Your task to perform on an android device: change alarm snooze length Image 0: 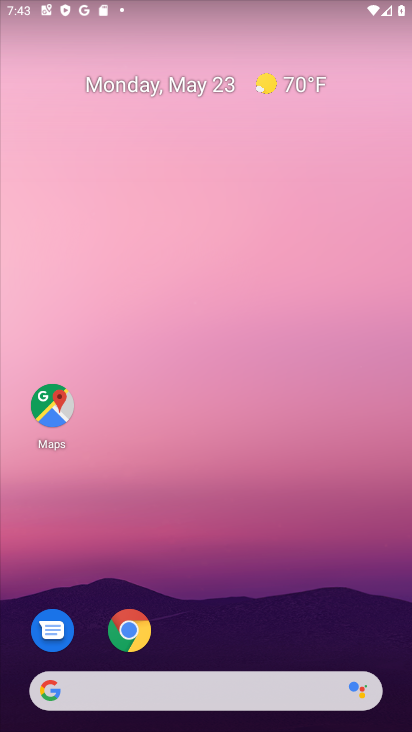
Step 0: click (211, 100)
Your task to perform on an android device: change alarm snooze length Image 1: 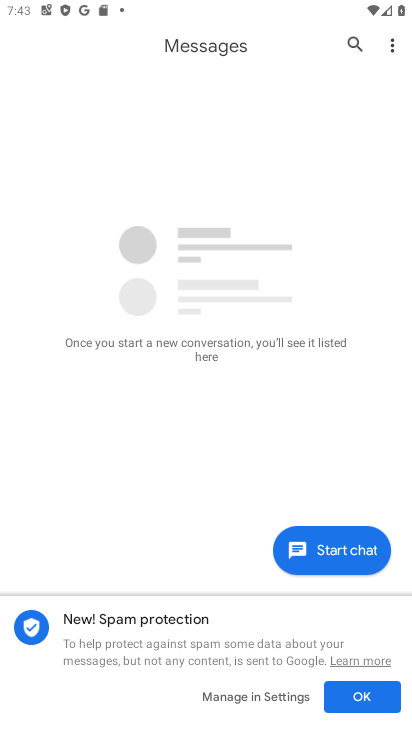
Step 1: press home button
Your task to perform on an android device: change alarm snooze length Image 2: 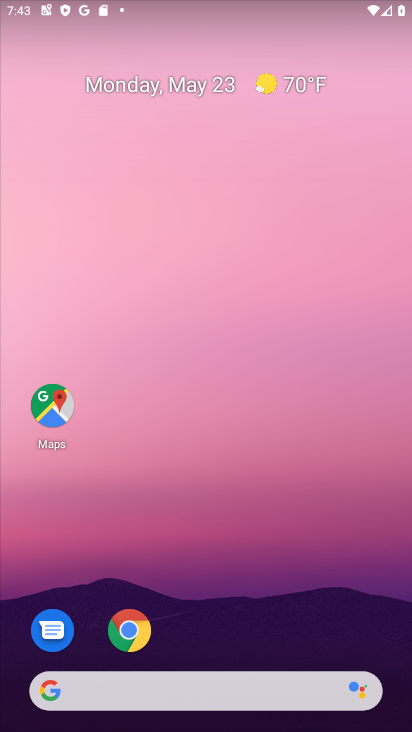
Step 2: drag from (310, 620) to (181, 145)
Your task to perform on an android device: change alarm snooze length Image 3: 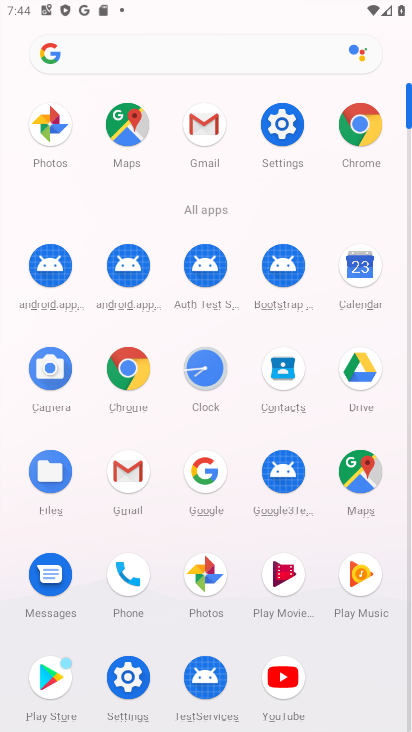
Step 3: click (202, 366)
Your task to perform on an android device: change alarm snooze length Image 4: 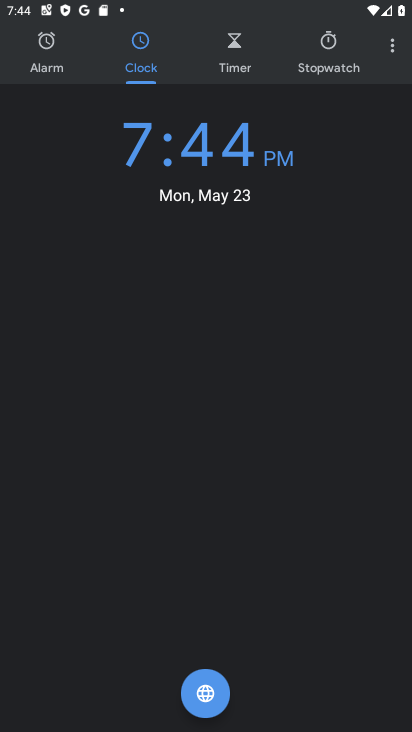
Step 4: click (395, 43)
Your task to perform on an android device: change alarm snooze length Image 5: 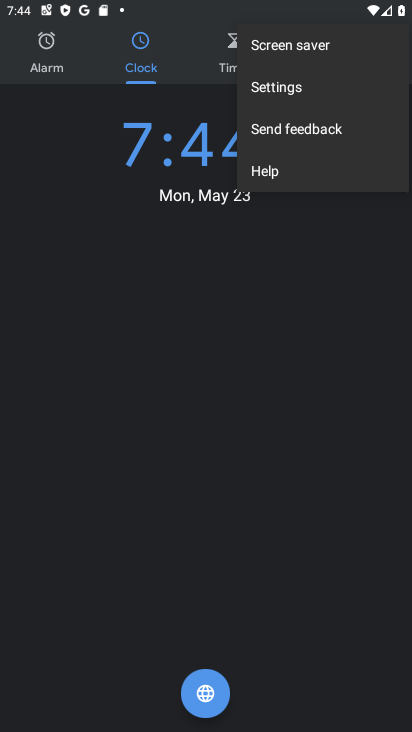
Step 5: click (282, 97)
Your task to perform on an android device: change alarm snooze length Image 6: 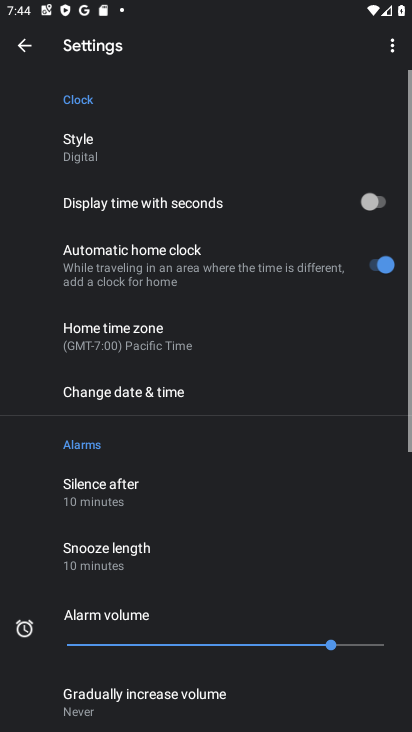
Step 6: drag from (220, 595) to (172, 326)
Your task to perform on an android device: change alarm snooze length Image 7: 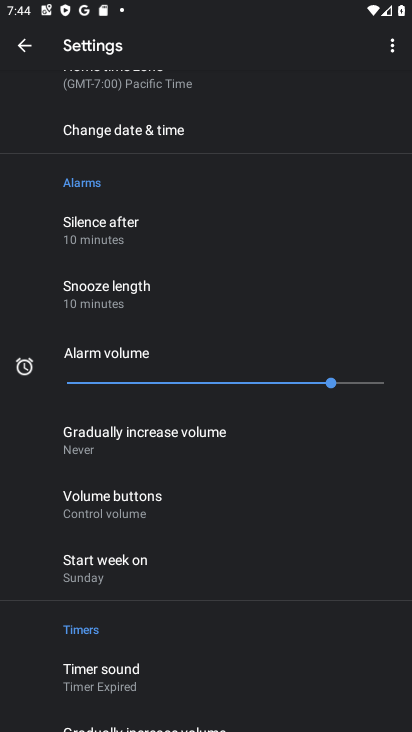
Step 7: click (130, 288)
Your task to perform on an android device: change alarm snooze length Image 8: 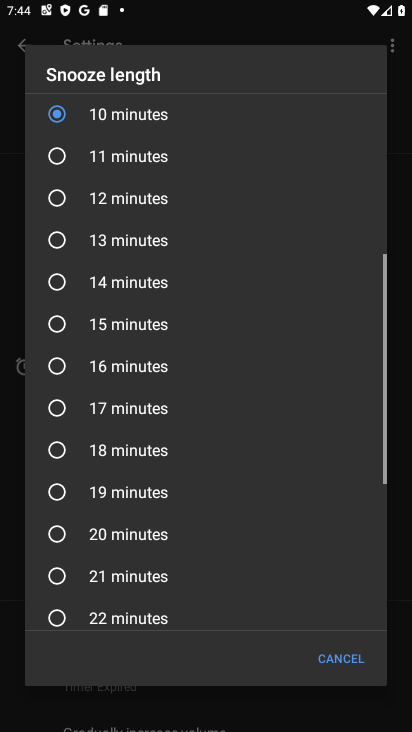
Step 8: click (88, 153)
Your task to perform on an android device: change alarm snooze length Image 9: 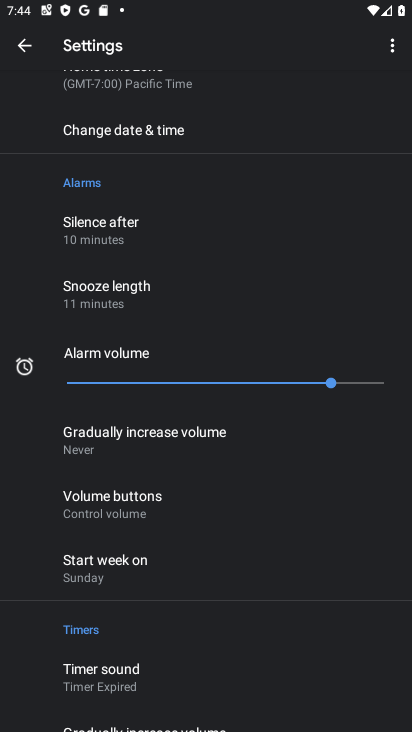
Step 9: task complete